Your task to perform on an android device: check out phone information Image 0: 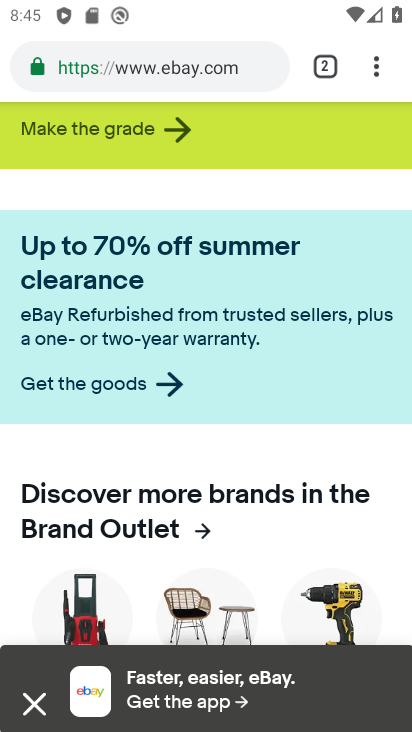
Step 0: press home button
Your task to perform on an android device: check out phone information Image 1: 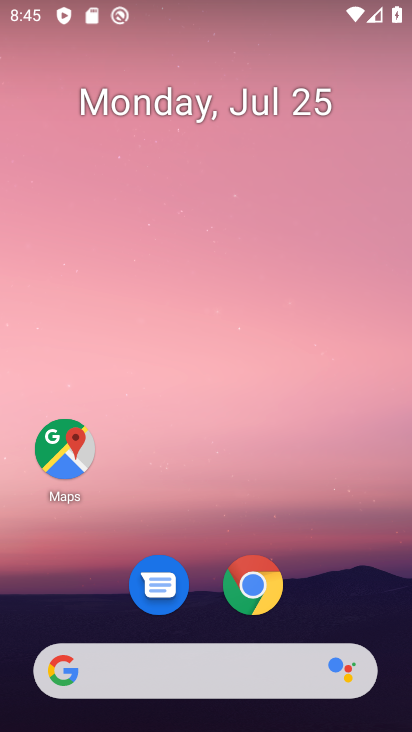
Step 1: drag from (191, 680) to (354, 141)
Your task to perform on an android device: check out phone information Image 2: 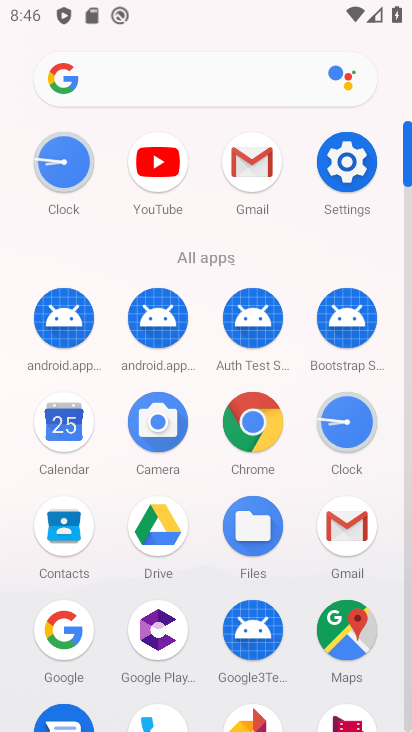
Step 2: click (346, 172)
Your task to perform on an android device: check out phone information Image 3: 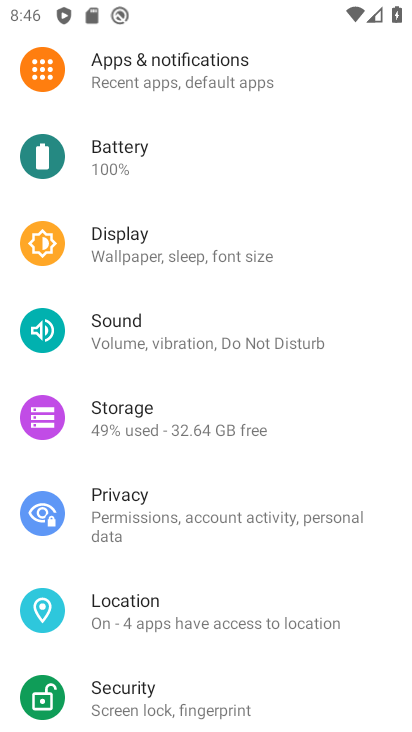
Step 3: drag from (185, 569) to (362, 69)
Your task to perform on an android device: check out phone information Image 4: 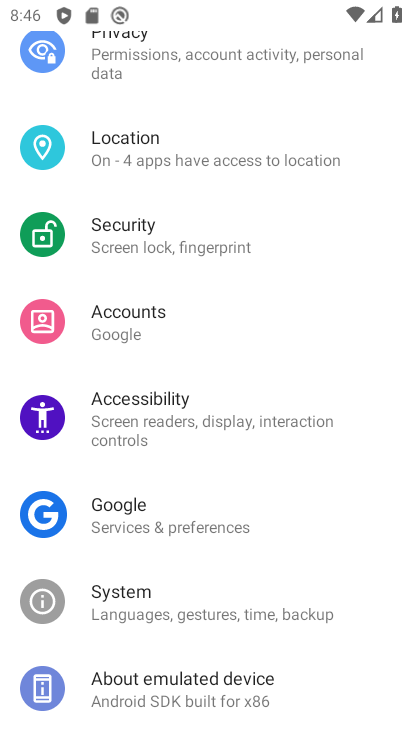
Step 4: drag from (204, 647) to (322, 159)
Your task to perform on an android device: check out phone information Image 5: 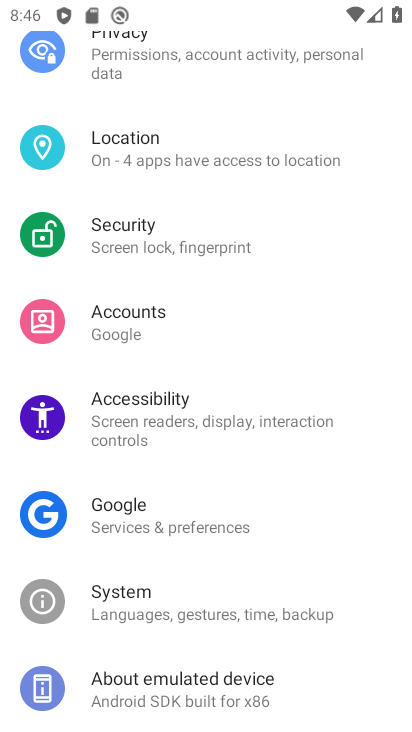
Step 5: click (156, 682)
Your task to perform on an android device: check out phone information Image 6: 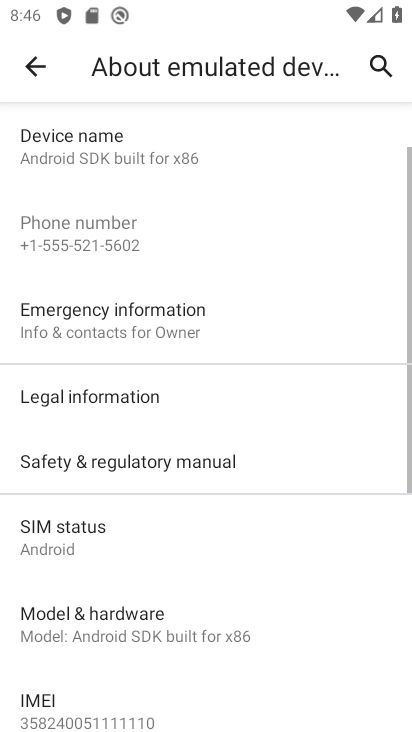
Step 6: task complete